Your task to perform on an android device: Is it going to rain tomorrow? Image 0: 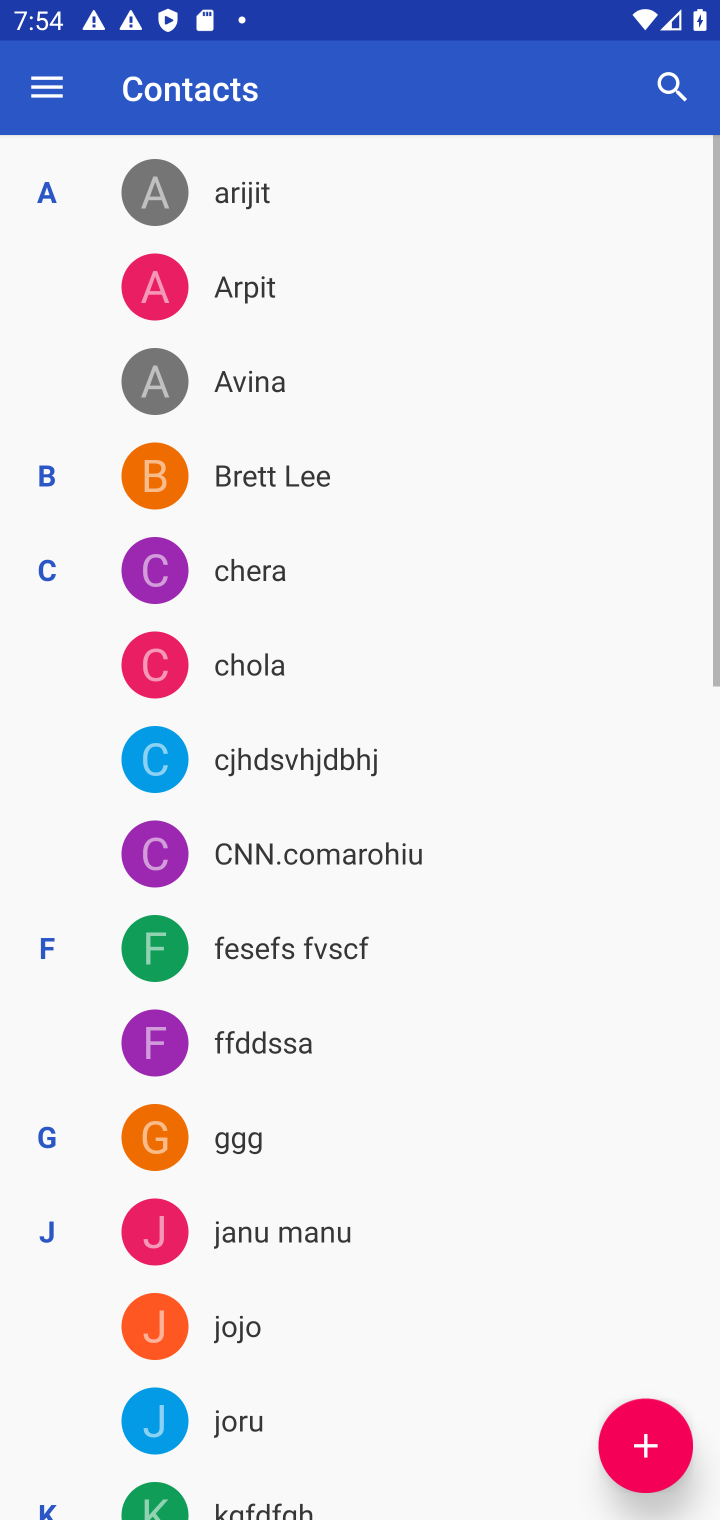
Step 0: press home button
Your task to perform on an android device: Is it going to rain tomorrow? Image 1: 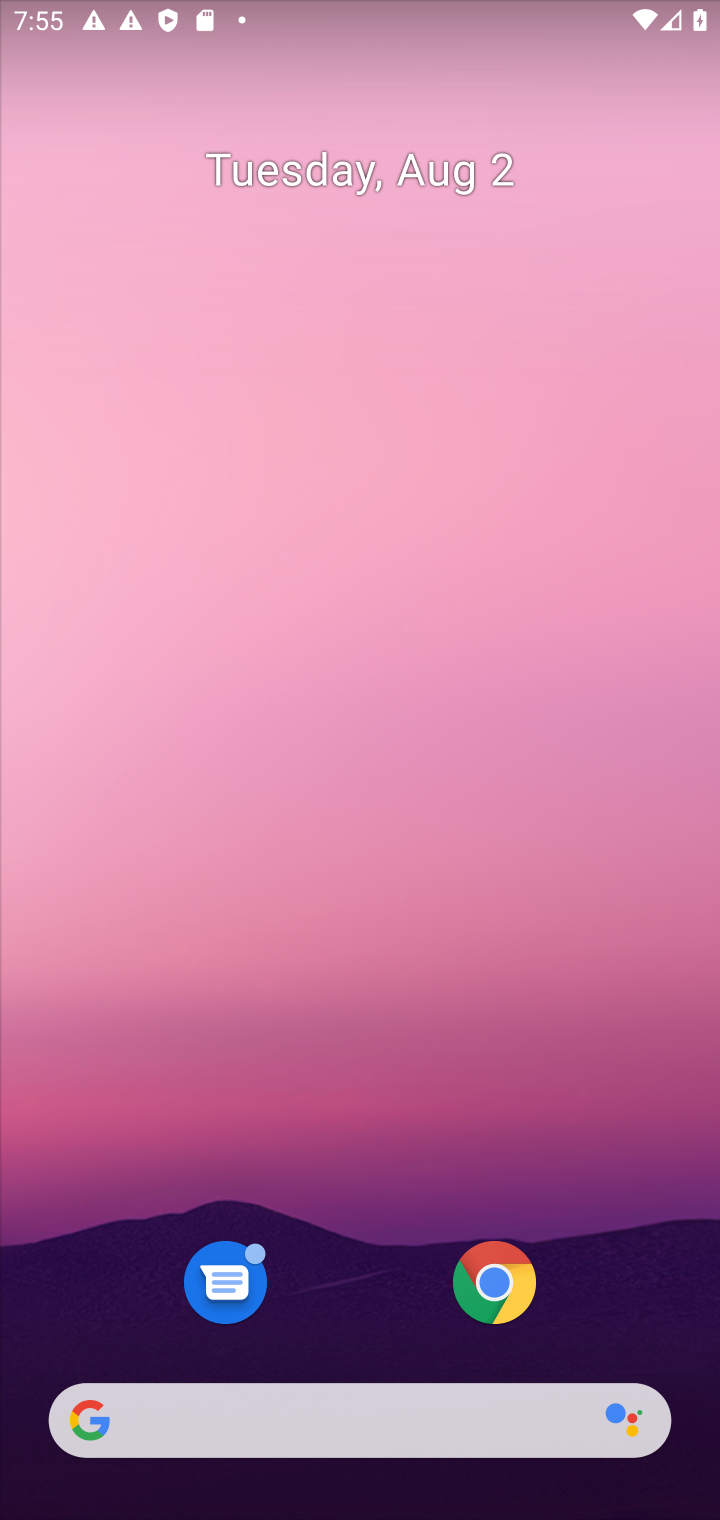
Step 1: drag from (378, 1372) to (305, 4)
Your task to perform on an android device: Is it going to rain tomorrow? Image 2: 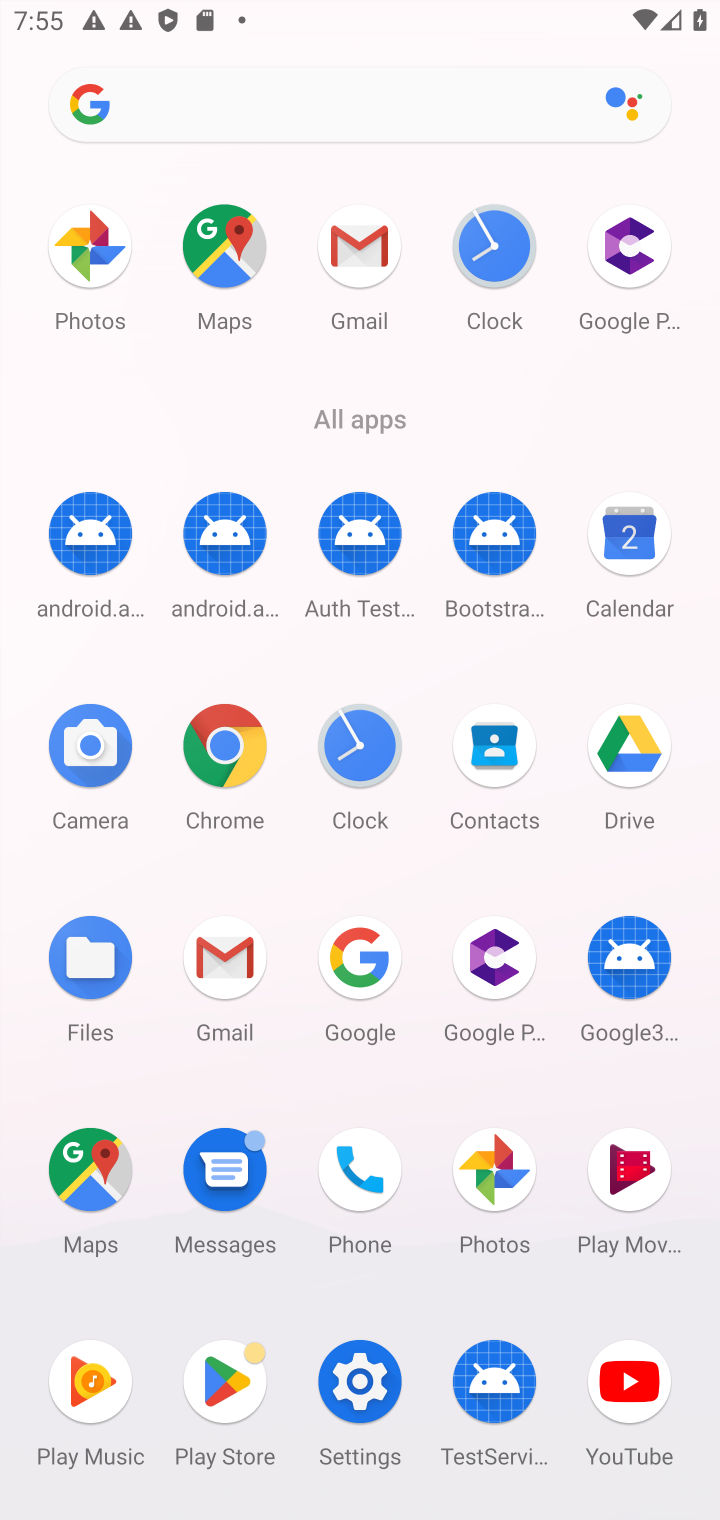
Step 2: click (397, 961)
Your task to perform on an android device: Is it going to rain tomorrow? Image 3: 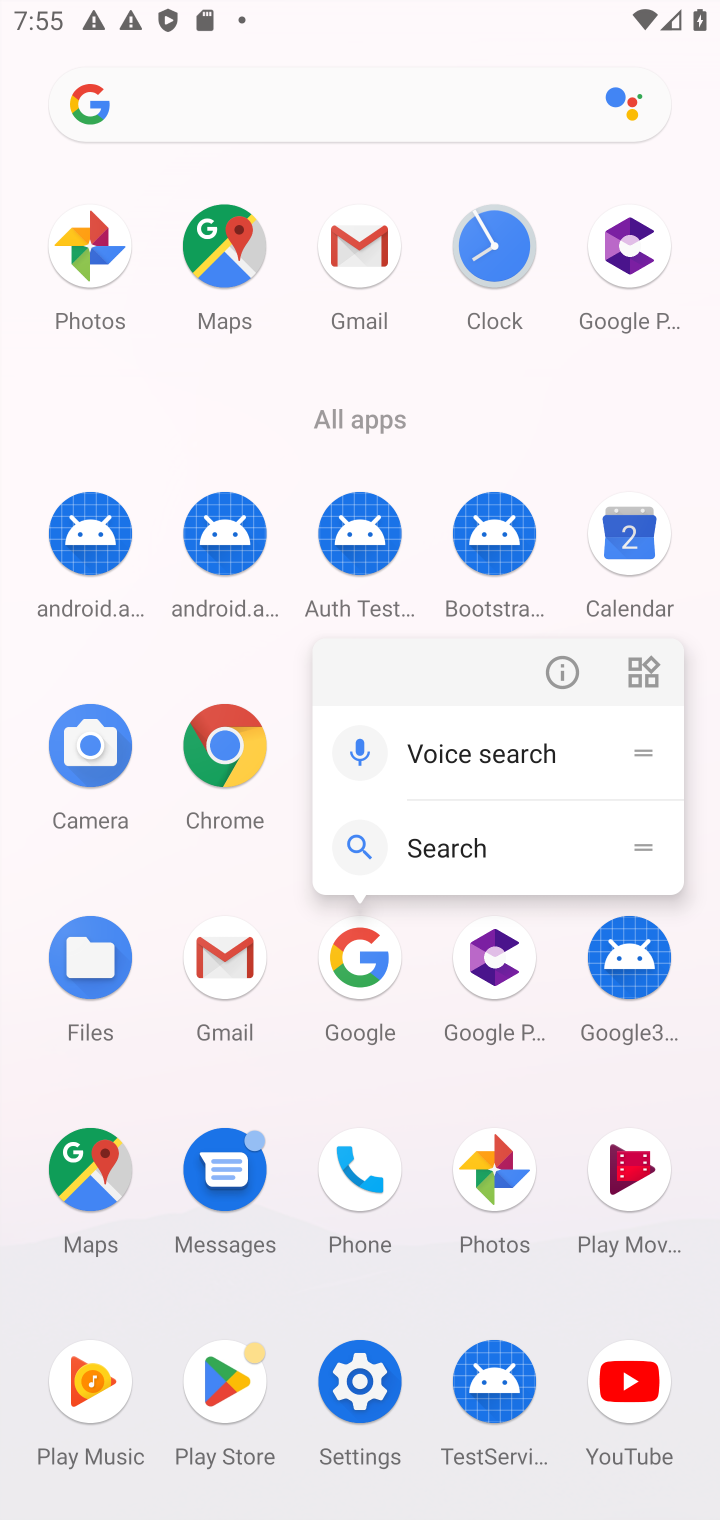
Step 3: click (372, 945)
Your task to perform on an android device: Is it going to rain tomorrow? Image 4: 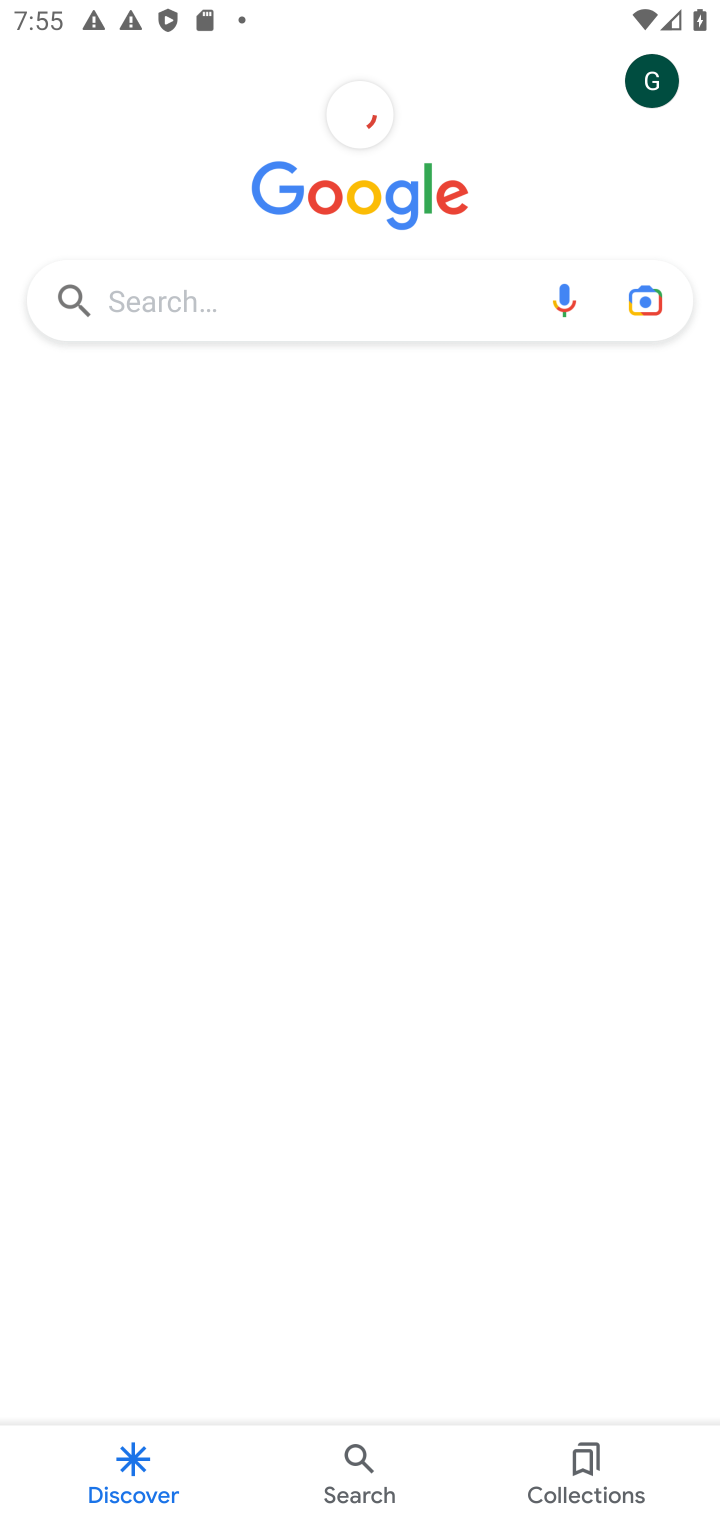
Step 4: click (204, 286)
Your task to perform on an android device: Is it going to rain tomorrow? Image 5: 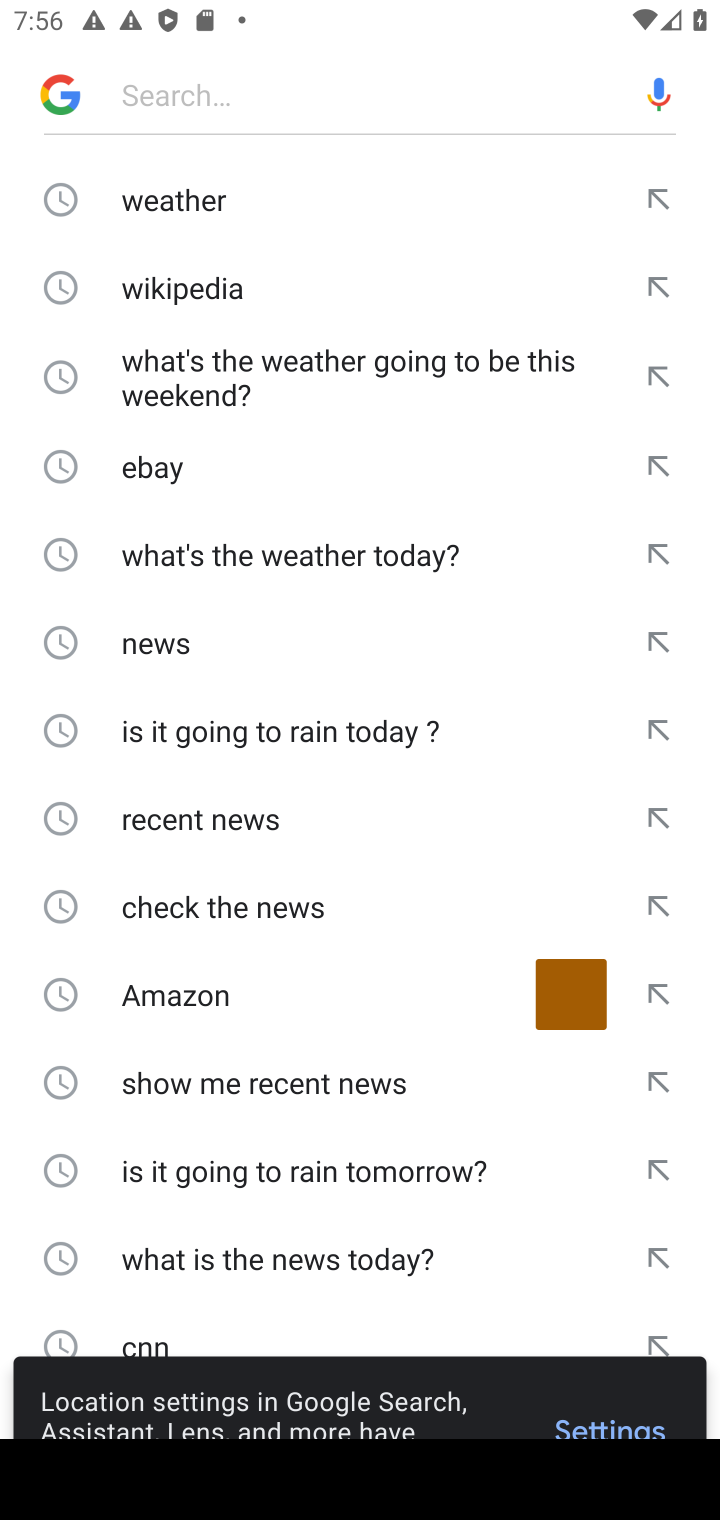
Step 5: click (167, 203)
Your task to perform on an android device: Is it going to rain tomorrow? Image 6: 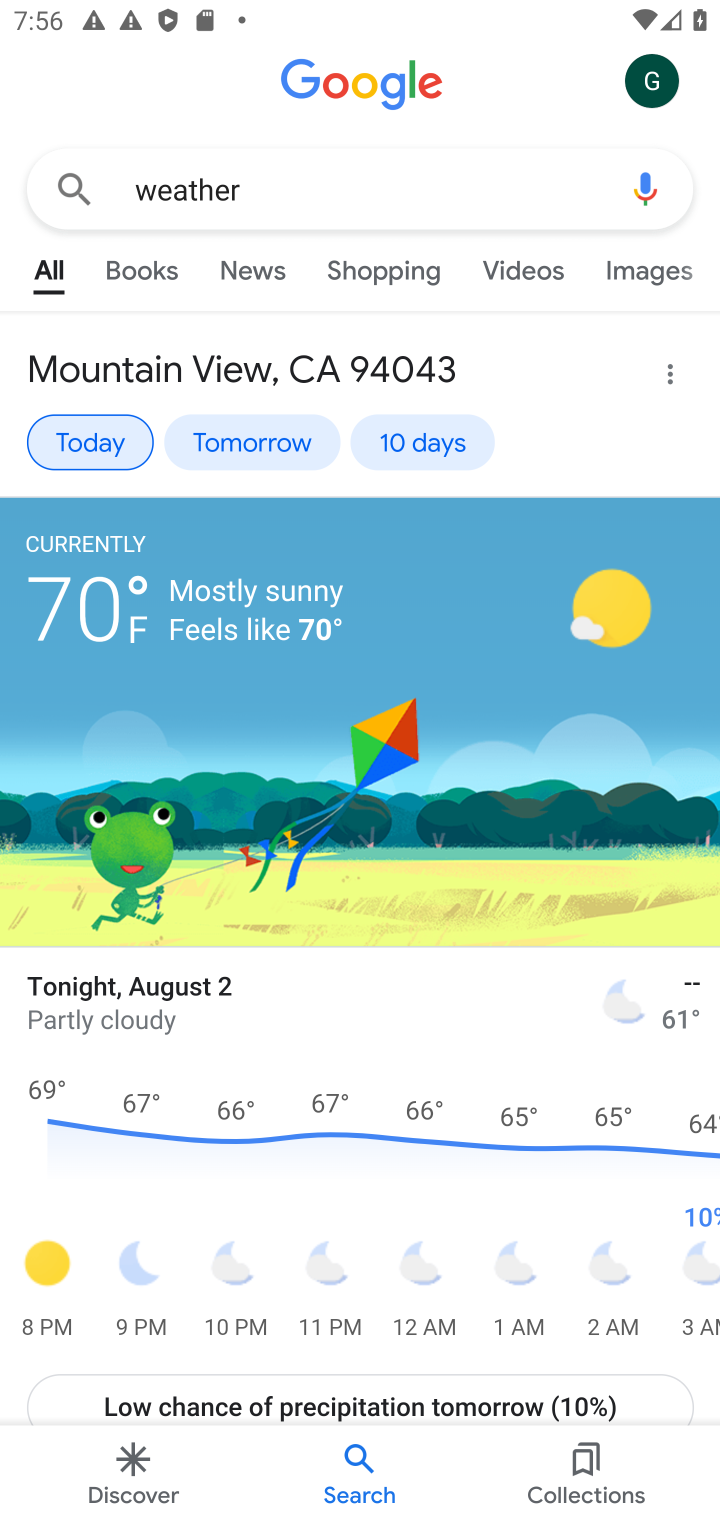
Step 6: click (202, 419)
Your task to perform on an android device: Is it going to rain tomorrow? Image 7: 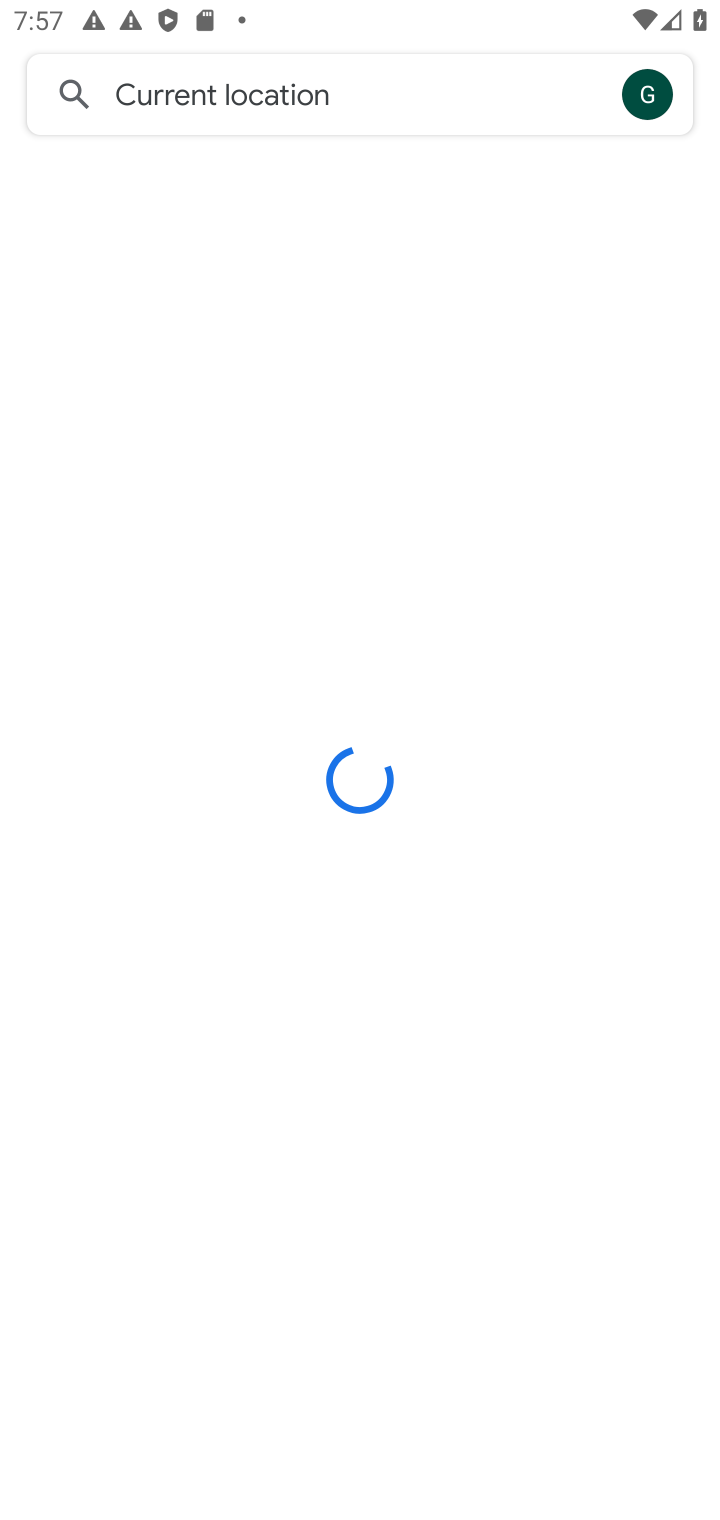
Step 7: task complete